Your task to perform on an android device: Open location settings Image 0: 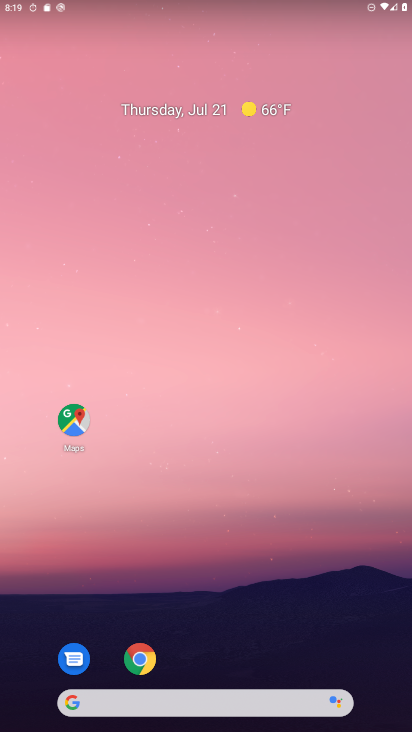
Step 0: drag from (198, 657) to (343, 292)
Your task to perform on an android device: Open location settings Image 1: 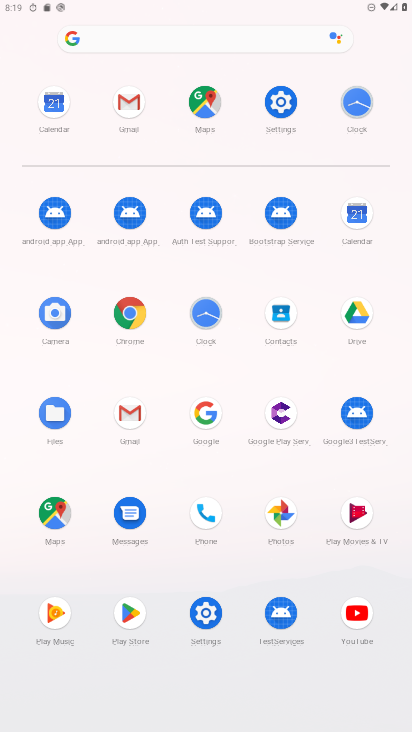
Step 1: click (214, 609)
Your task to perform on an android device: Open location settings Image 2: 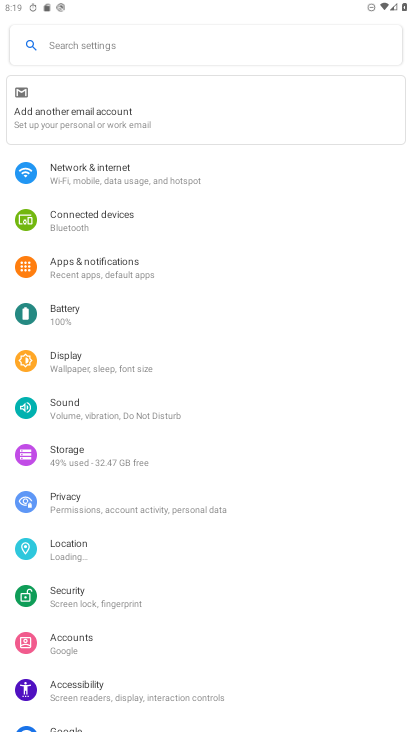
Step 2: drag from (195, 571) to (215, 293)
Your task to perform on an android device: Open location settings Image 3: 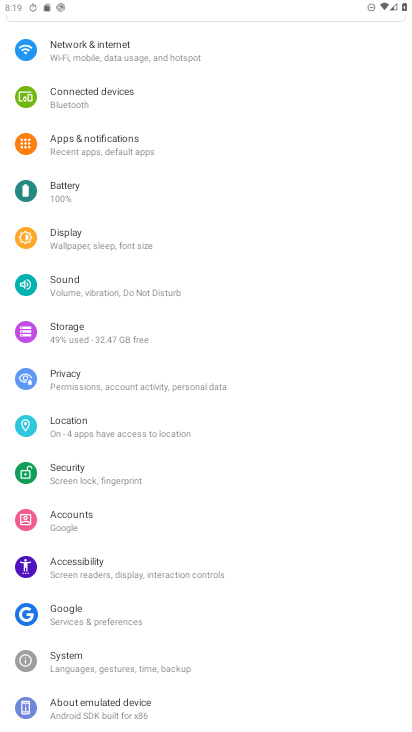
Step 3: click (103, 432)
Your task to perform on an android device: Open location settings Image 4: 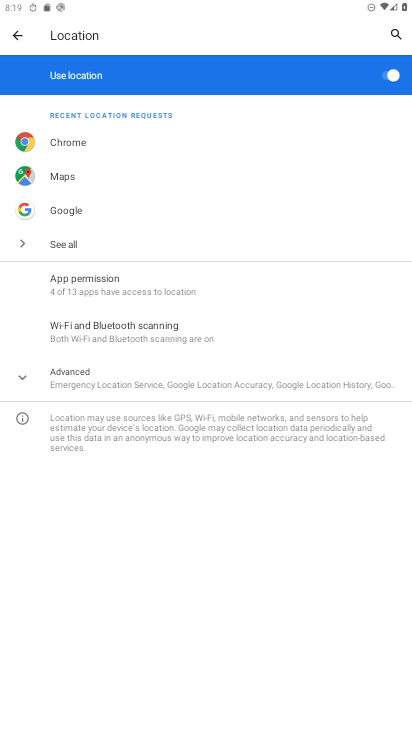
Step 4: drag from (149, 578) to (191, 191)
Your task to perform on an android device: Open location settings Image 5: 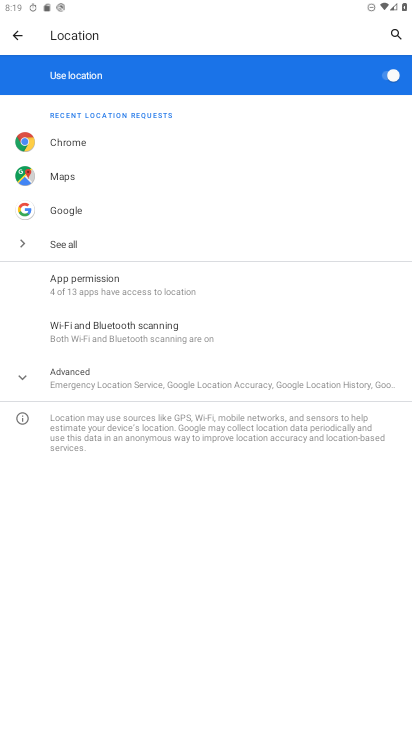
Step 5: click (105, 378)
Your task to perform on an android device: Open location settings Image 6: 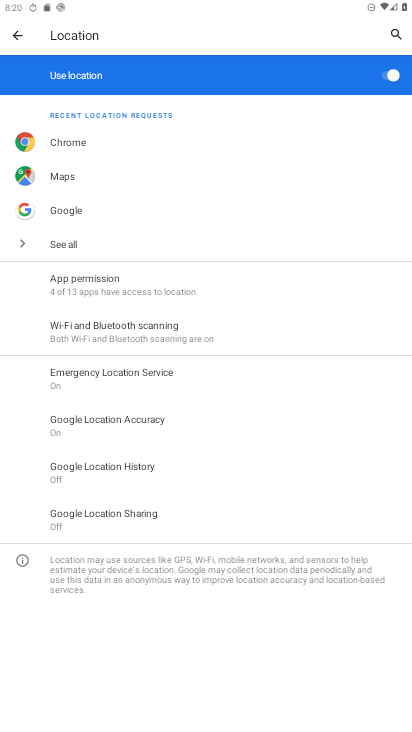
Step 6: task complete